Your task to perform on an android device: clear history in the chrome app Image 0: 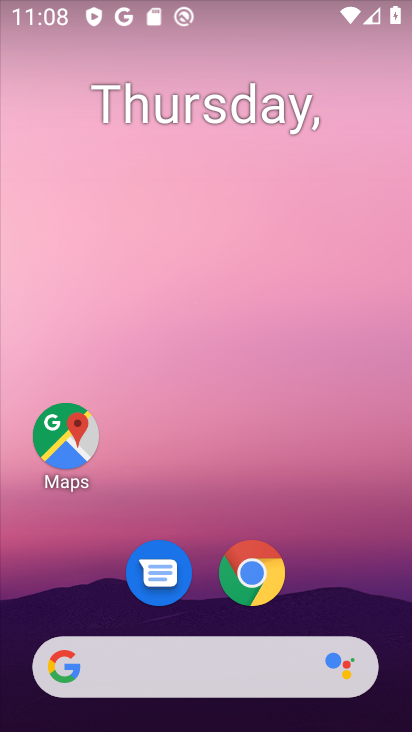
Step 0: click (260, 570)
Your task to perform on an android device: clear history in the chrome app Image 1: 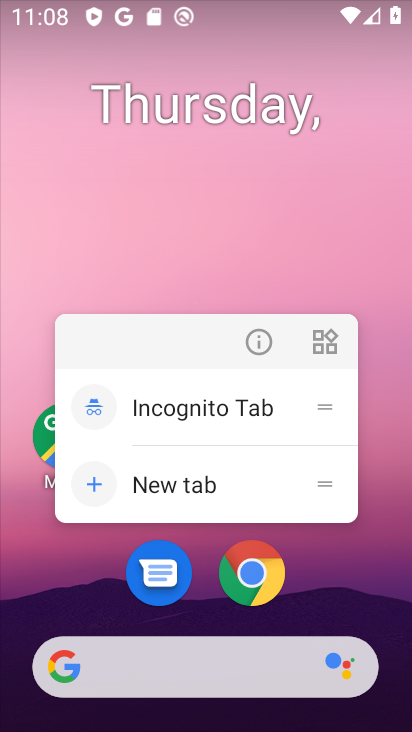
Step 1: click (260, 570)
Your task to perform on an android device: clear history in the chrome app Image 2: 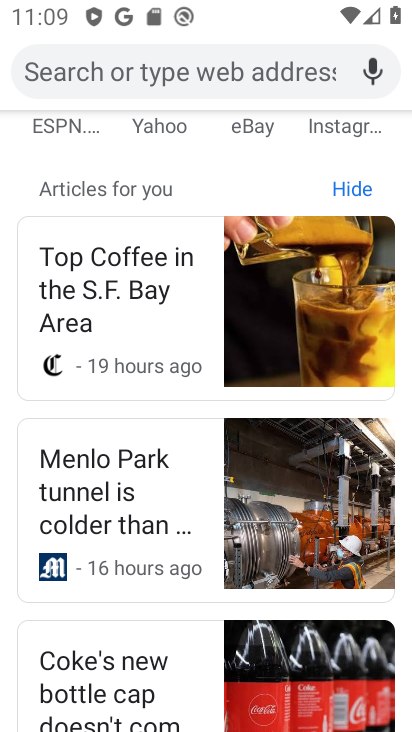
Step 2: drag from (119, 141) to (124, 585)
Your task to perform on an android device: clear history in the chrome app Image 3: 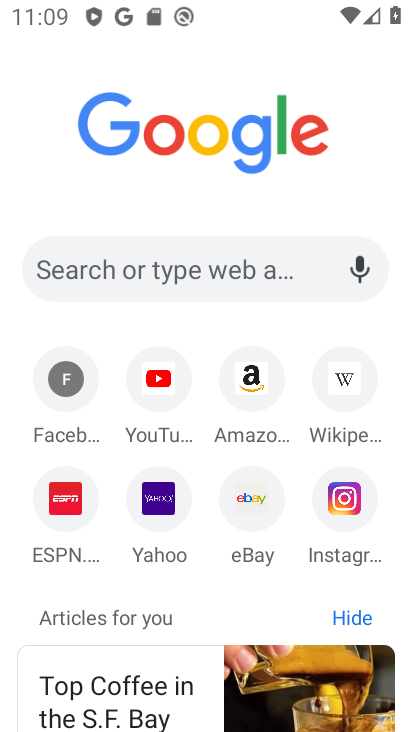
Step 3: drag from (230, 166) to (233, 521)
Your task to perform on an android device: clear history in the chrome app Image 4: 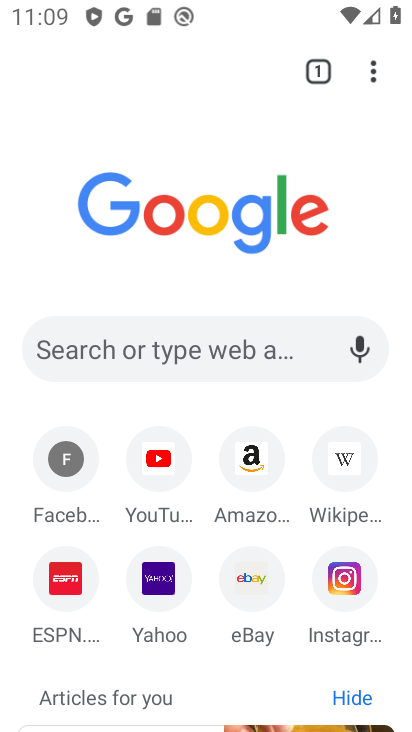
Step 4: click (373, 69)
Your task to perform on an android device: clear history in the chrome app Image 5: 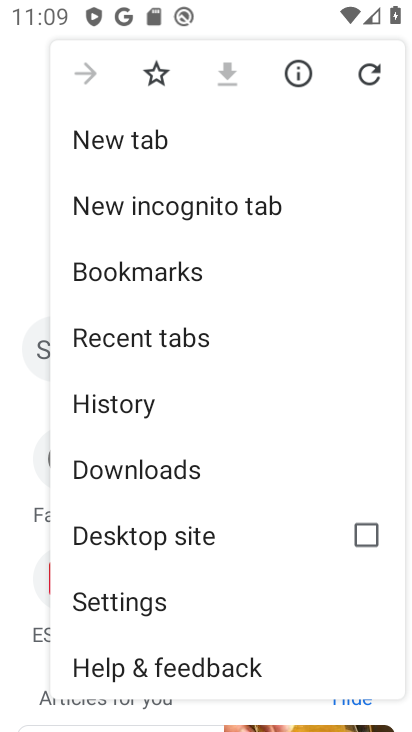
Step 5: click (132, 403)
Your task to perform on an android device: clear history in the chrome app Image 6: 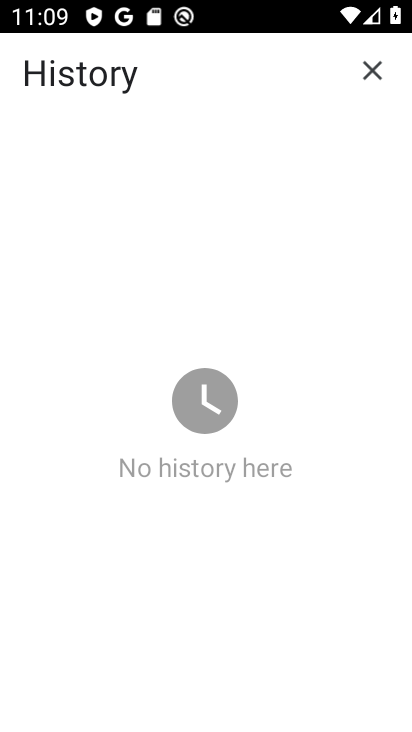
Step 6: click (132, 403)
Your task to perform on an android device: clear history in the chrome app Image 7: 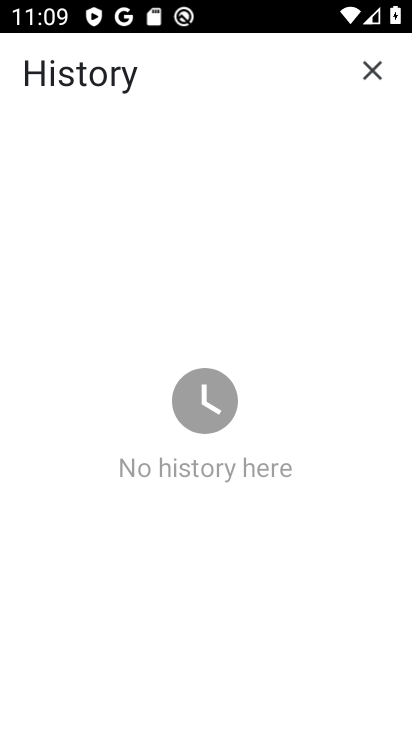
Step 7: task complete